Your task to perform on an android device: Search for pizza restaurants on Maps Image 0: 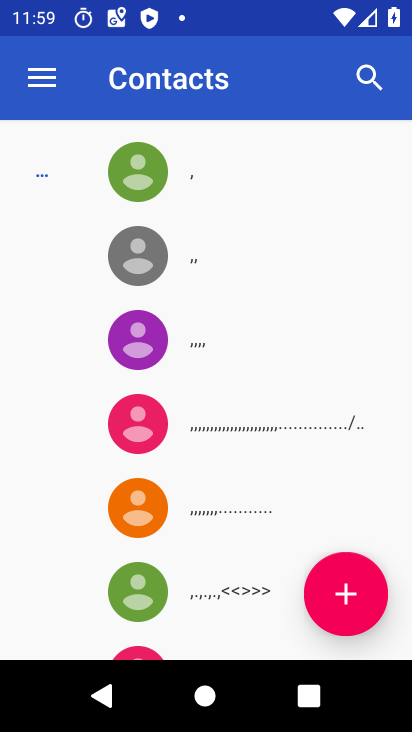
Step 0: press home button
Your task to perform on an android device: Search for pizza restaurants on Maps Image 1: 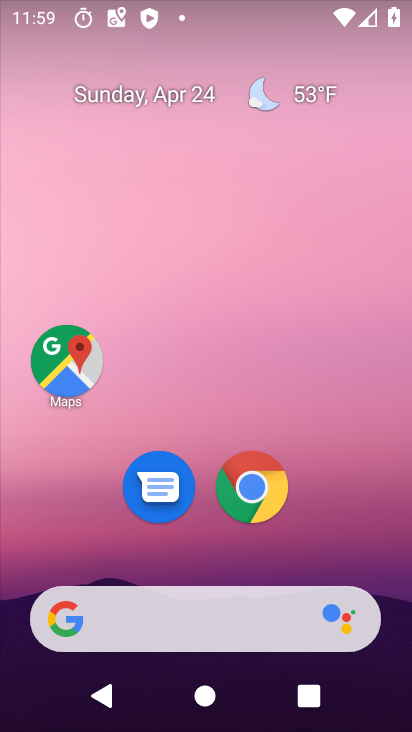
Step 1: click (61, 357)
Your task to perform on an android device: Search for pizza restaurants on Maps Image 2: 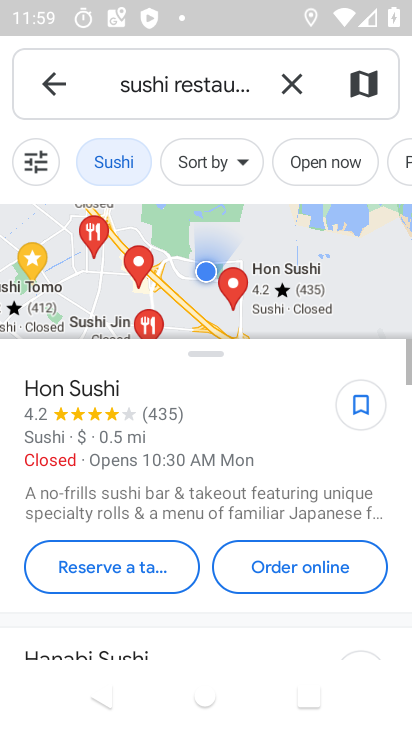
Step 2: click (285, 84)
Your task to perform on an android device: Search for pizza restaurants on Maps Image 3: 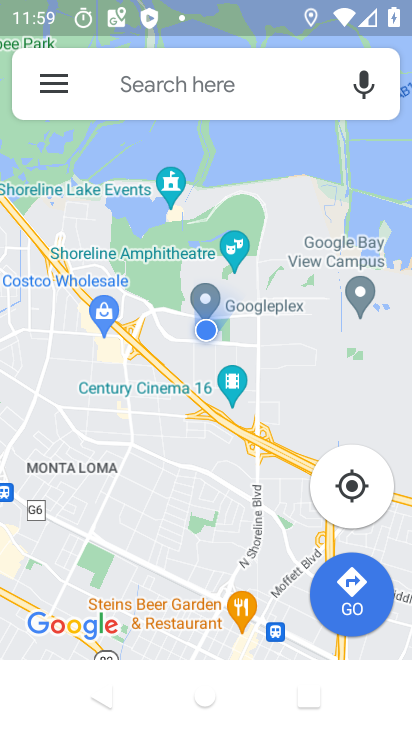
Step 3: click (167, 86)
Your task to perform on an android device: Search for pizza restaurants on Maps Image 4: 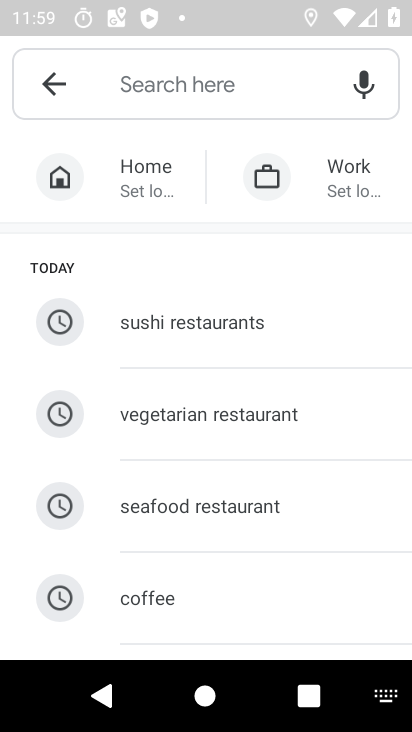
Step 4: type "pizza"
Your task to perform on an android device: Search for pizza restaurants on Maps Image 5: 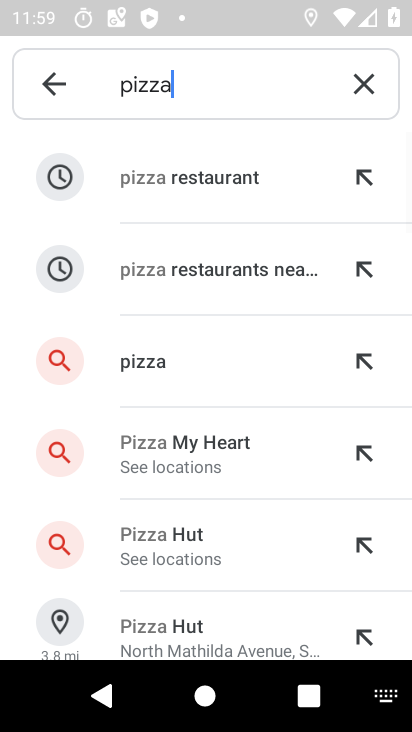
Step 5: click (204, 194)
Your task to perform on an android device: Search for pizza restaurants on Maps Image 6: 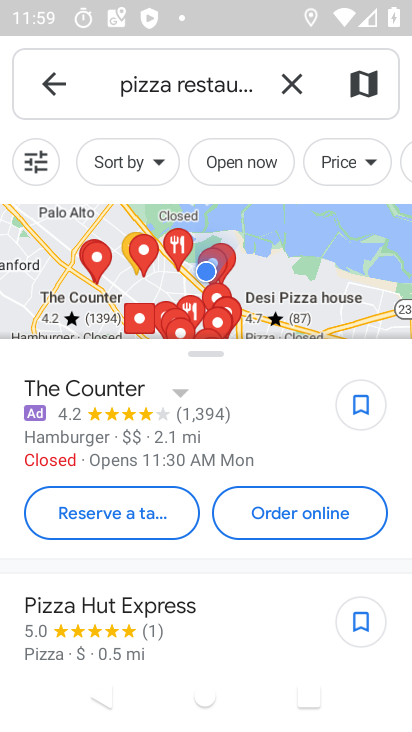
Step 6: task complete